Your task to perform on an android device: Go to Google maps Image 0: 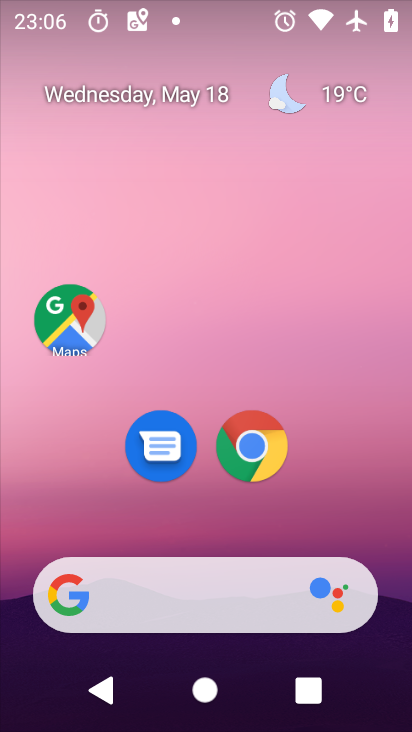
Step 0: press home button
Your task to perform on an android device: Go to Google maps Image 1: 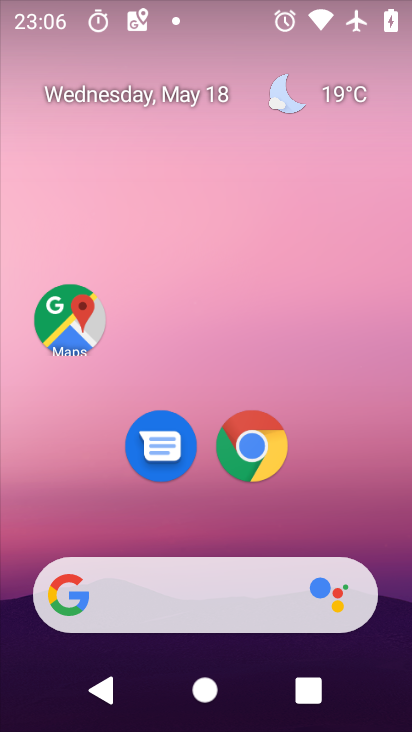
Step 1: click (79, 316)
Your task to perform on an android device: Go to Google maps Image 2: 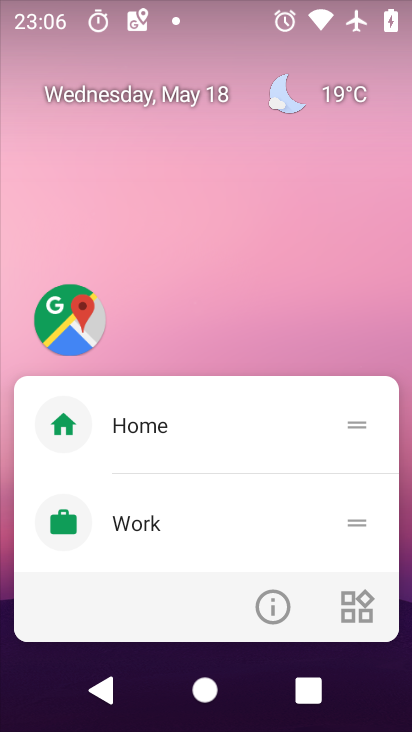
Step 2: click (64, 334)
Your task to perform on an android device: Go to Google maps Image 3: 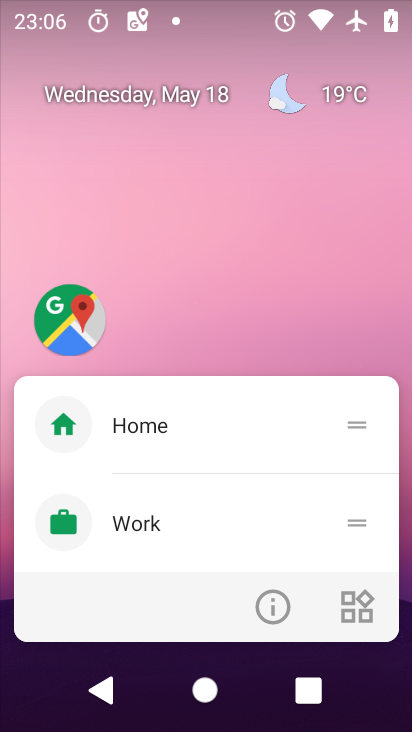
Step 3: click (66, 344)
Your task to perform on an android device: Go to Google maps Image 4: 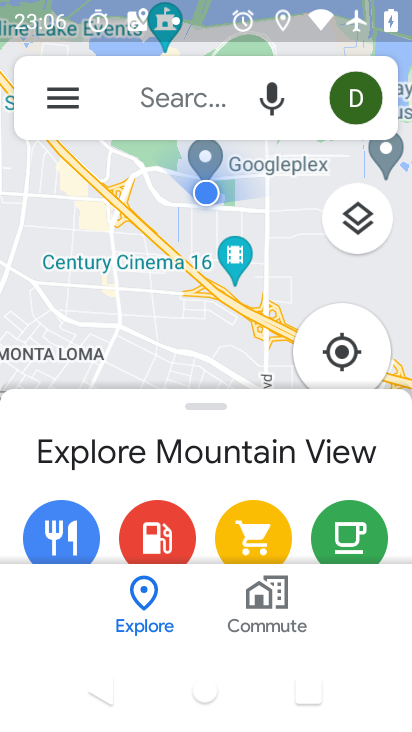
Step 4: task complete